Your task to perform on an android device: turn on sleep mode Image 0: 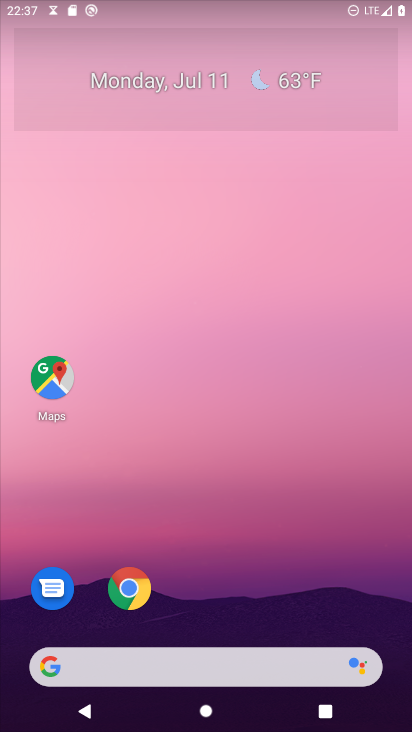
Step 0: press home button
Your task to perform on an android device: turn on sleep mode Image 1: 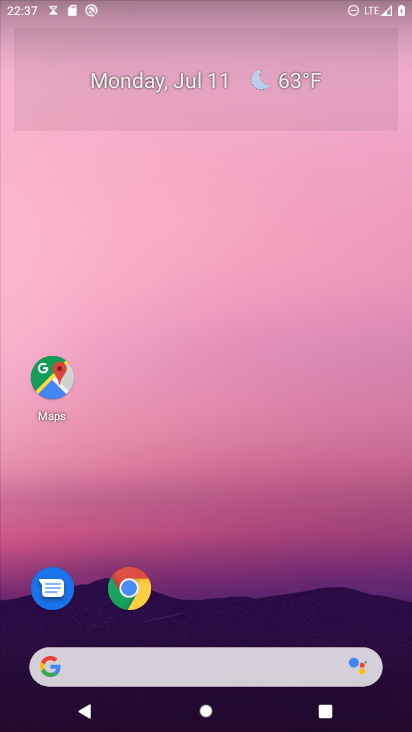
Step 1: press home button
Your task to perform on an android device: turn on sleep mode Image 2: 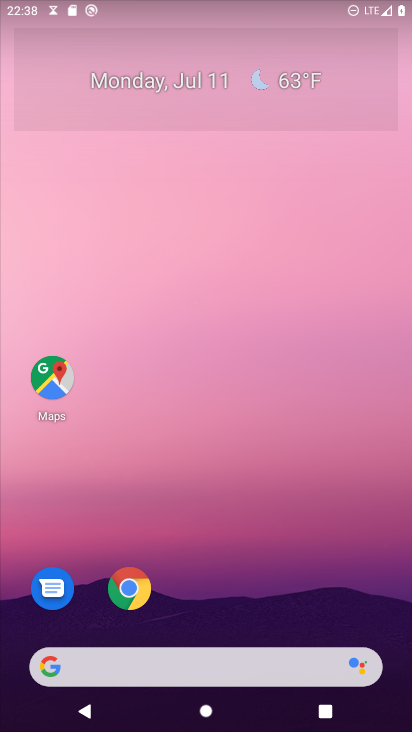
Step 2: drag from (285, 528) to (280, 125)
Your task to perform on an android device: turn on sleep mode Image 3: 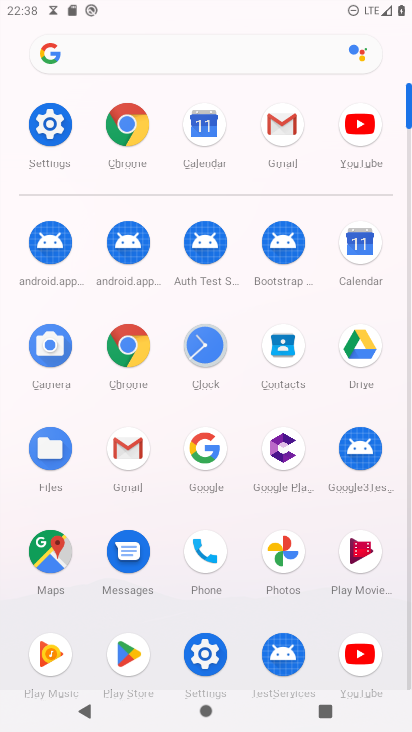
Step 3: click (54, 125)
Your task to perform on an android device: turn on sleep mode Image 4: 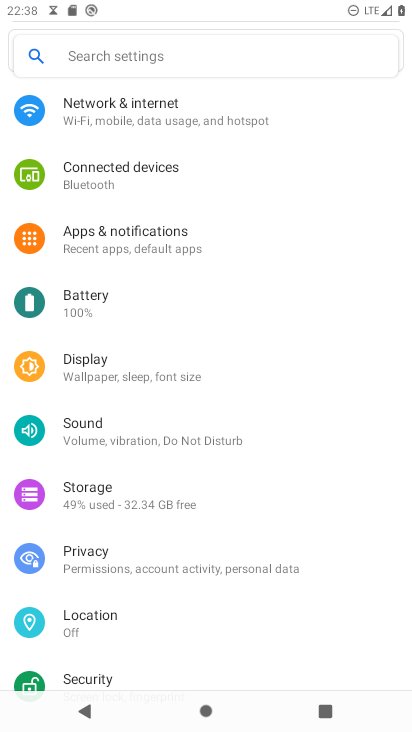
Step 4: click (76, 370)
Your task to perform on an android device: turn on sleep mode Image 5: 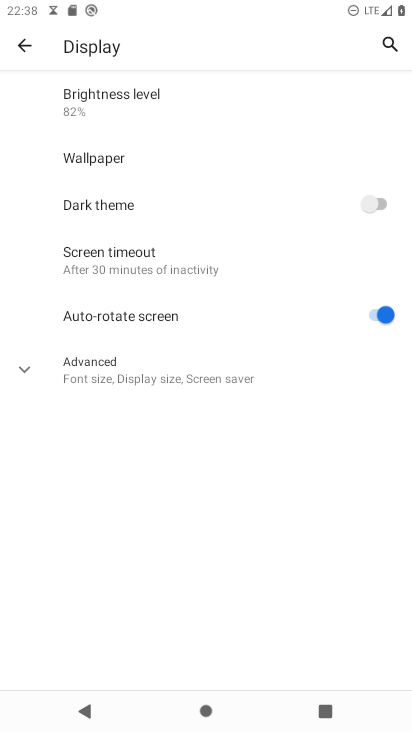
Step 5: task complete